Your task to perform on an android device: find snoozed emails in the gmail app Image 0: 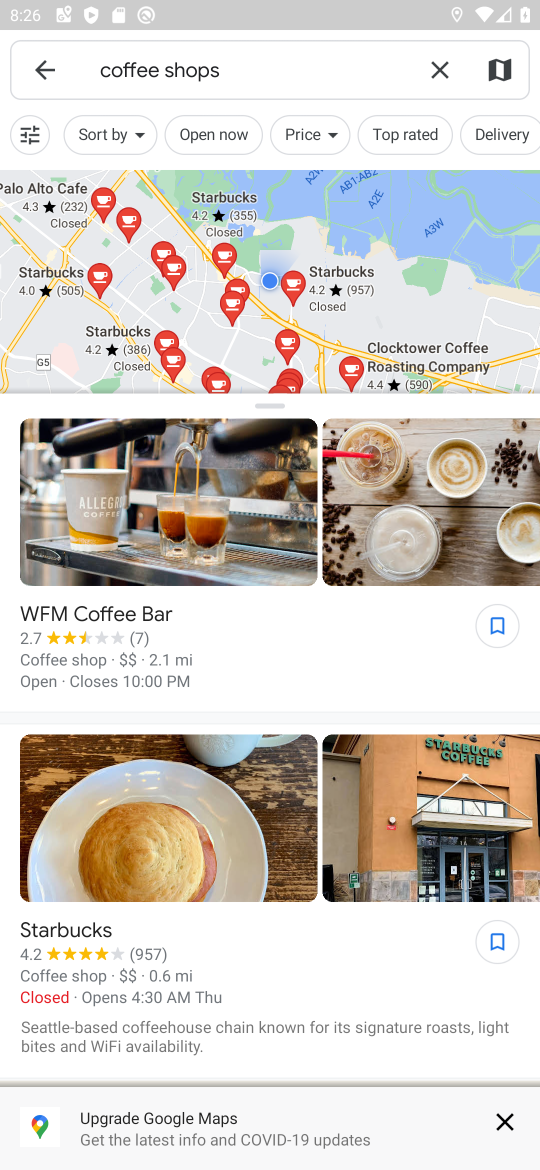
Step 0: press home button
Your task to perform on an android device: find snoozed emails in the gmail app Image 1: 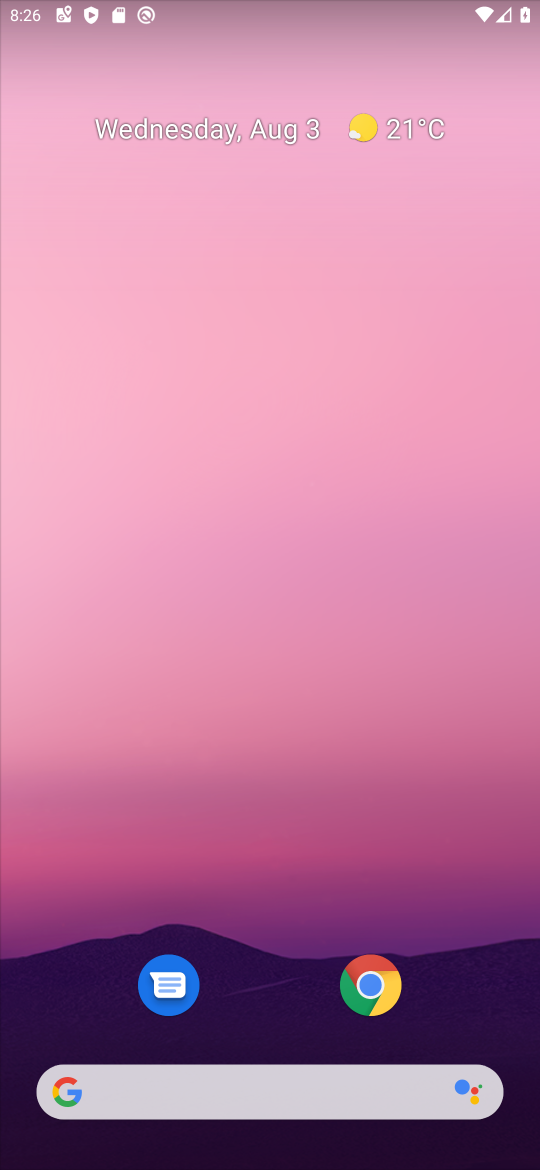
Step 1: drag from (273, 999) to (224, 318)
Your task to perform on an android device: find snoozed emails in the gmail app Image 2: 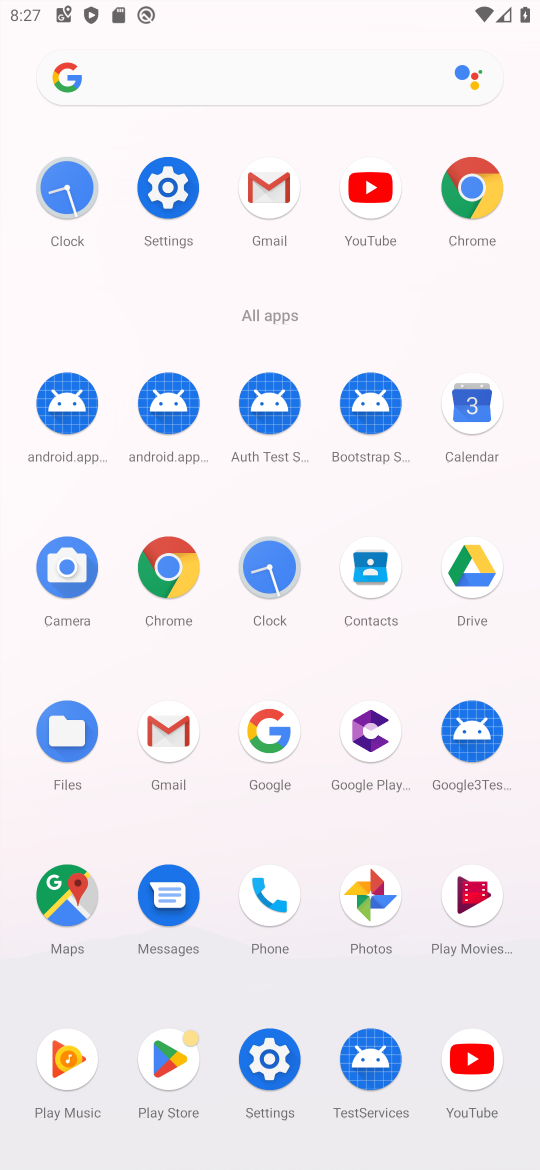
Step 2: click (273, 227)
Your task to perform on an android device: find snoozed emails in the gmail app Image 3: 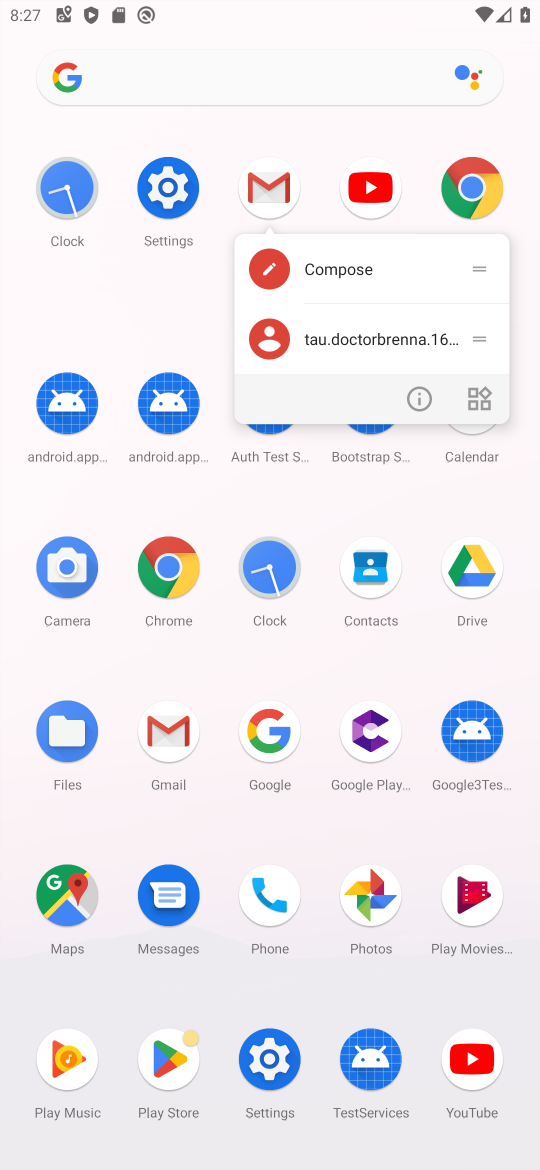
Step 3: click (269, 182)
Your task to perform on an android device: find snoozed emails in the gmail app Image 4: 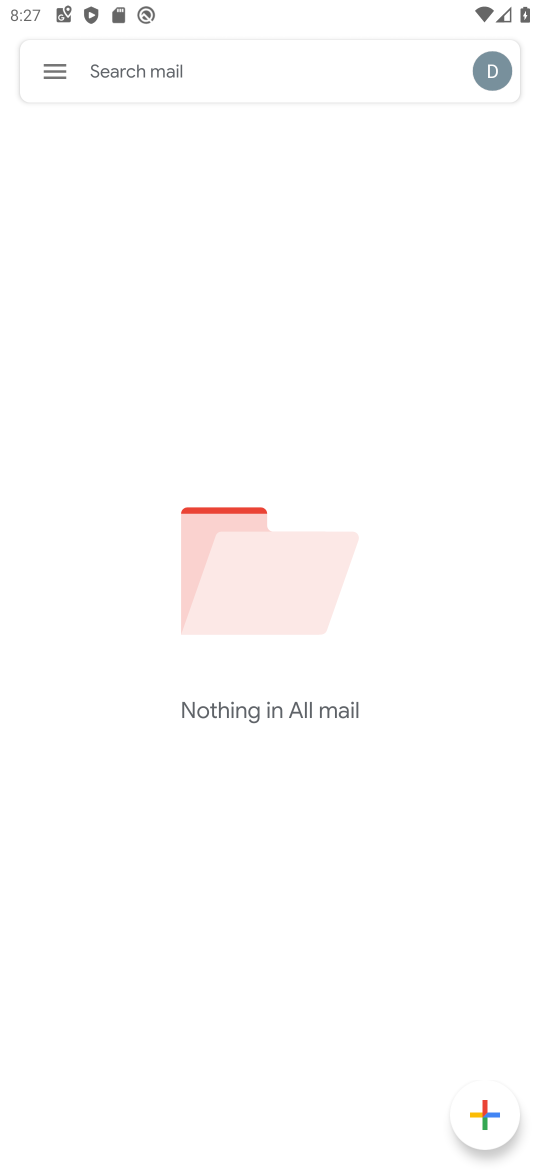
Step 4: click (40, 72)
Your task to perform on an android device: find snoozed emails in the gmail app Image 5: 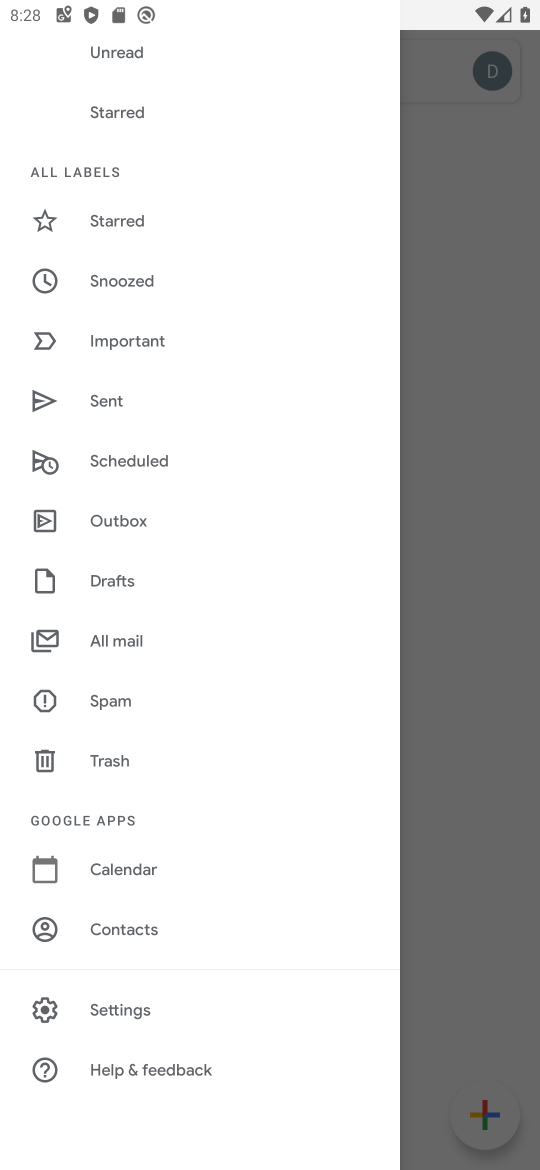
Step 5: click (146, 271)
Your task to perform on an android device: find snoozed emails in the gmail app Image 6: 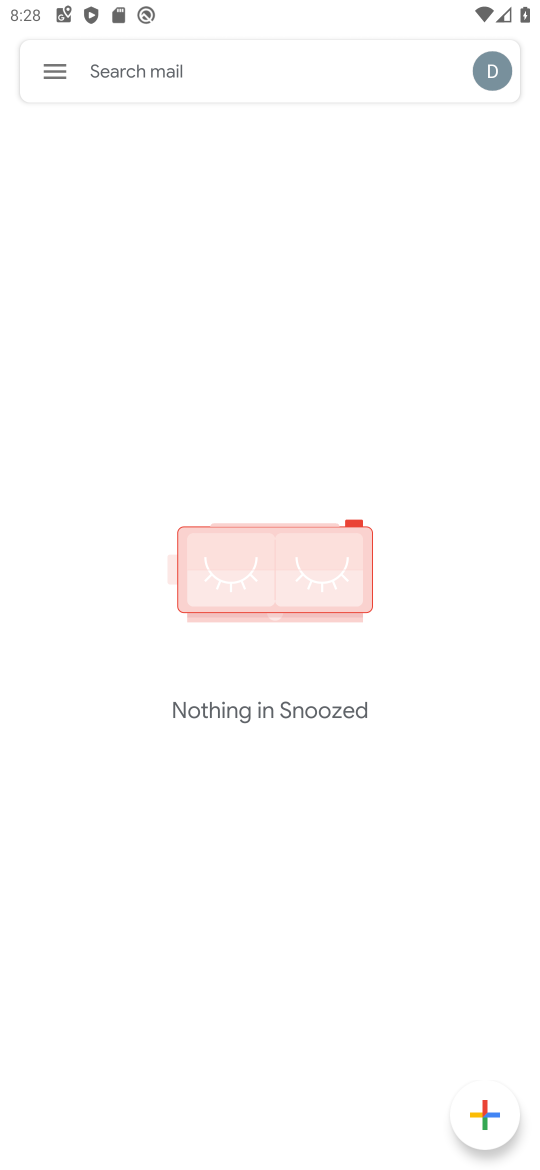
Step 6: task complete